Your task to perform on an android device: Open battery settings Image 0: 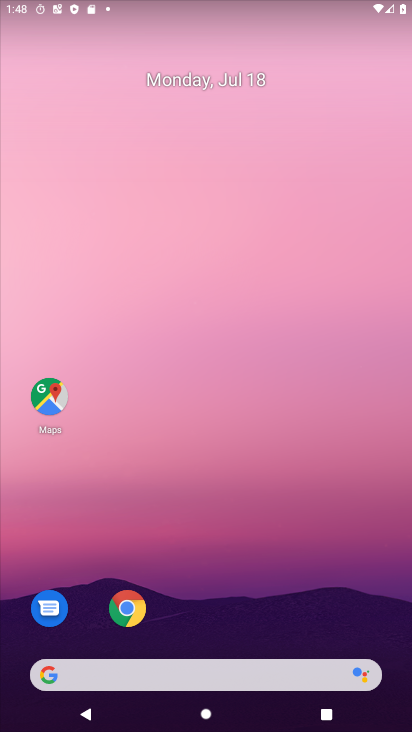
Step 0: drag from (253, 678) to (245, 164)
Your task to perform on an android device: Open battery settings Image 1: 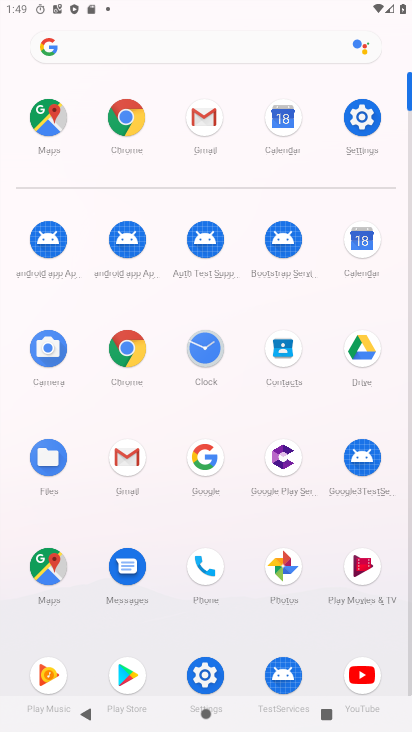
Step 1: click (352, 113)
Your task to perform on an android device: Open battery settings Image 2: 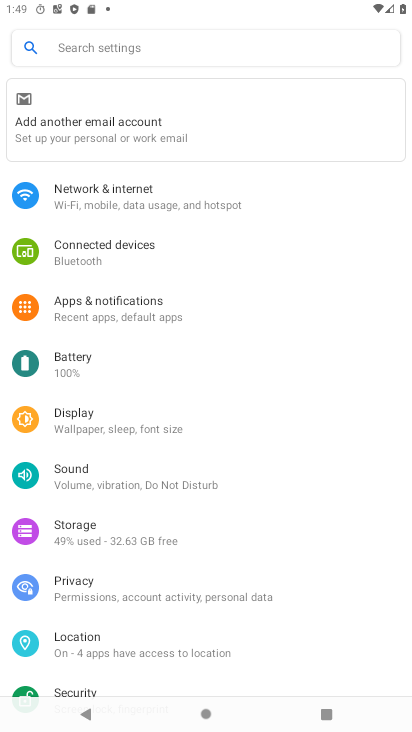
Step 2: click (67, 357)
Your task to perform on an android device: Open battery settings Image 3: 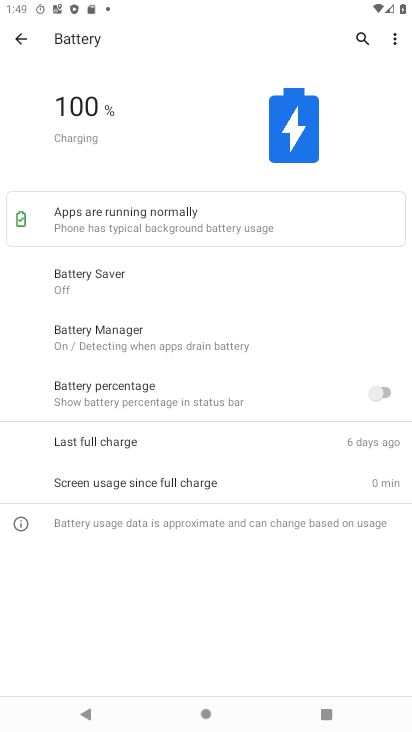
Step 3: task complete